Your task to perform on an android device: Open my contact list Image 0: 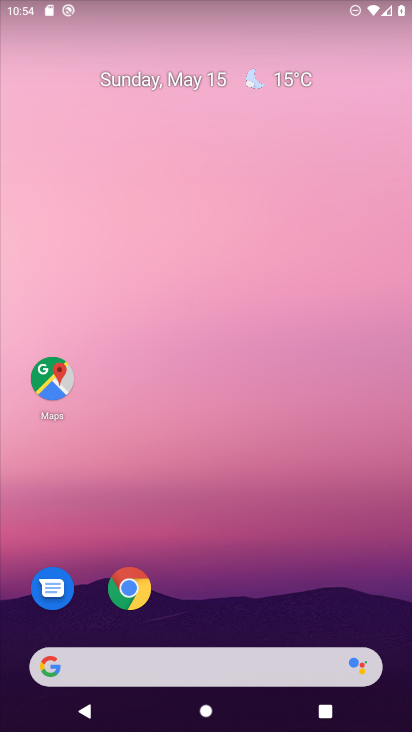
Step 0: drag from (227, 490) to (321, 129)
Your task to perform on an android device: Open my contact list Image 1: 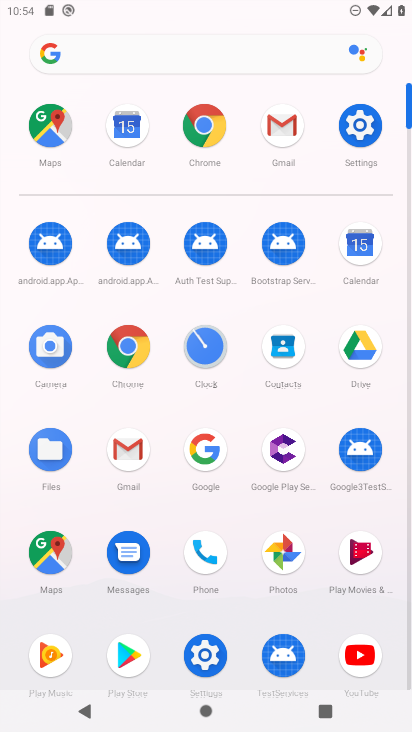
Step 1: click (286, 353)
Your task to perform on an android device: Open my contact list Image 2: 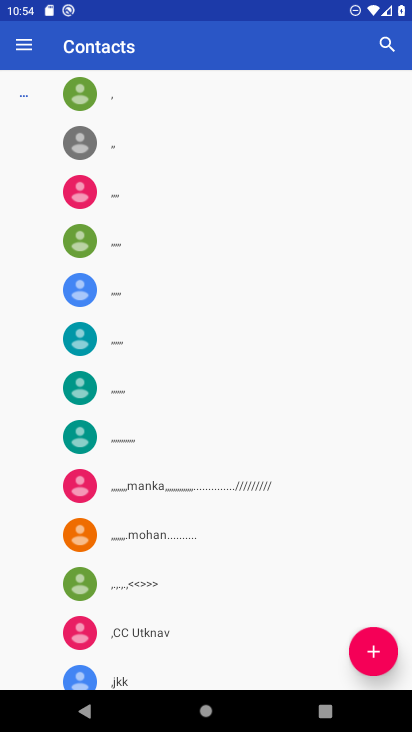
Step 2: task complete